Your task to perform on an android device: open a bookmark in the chrome app Image 0: 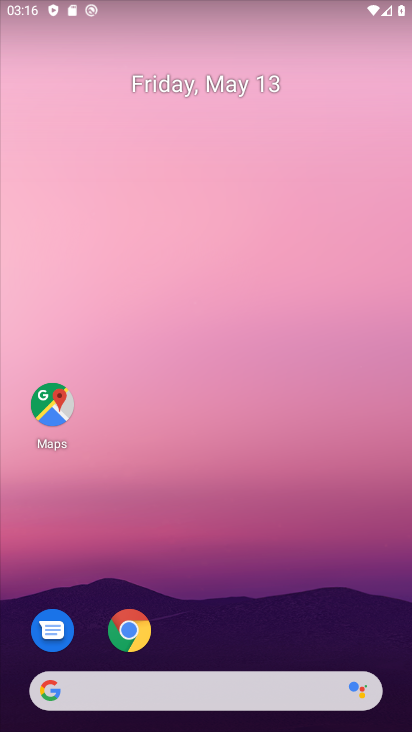
Step 0: click (145, 621)
Your task to perform on an android device: open a bookmark in the chrome app Image 1: 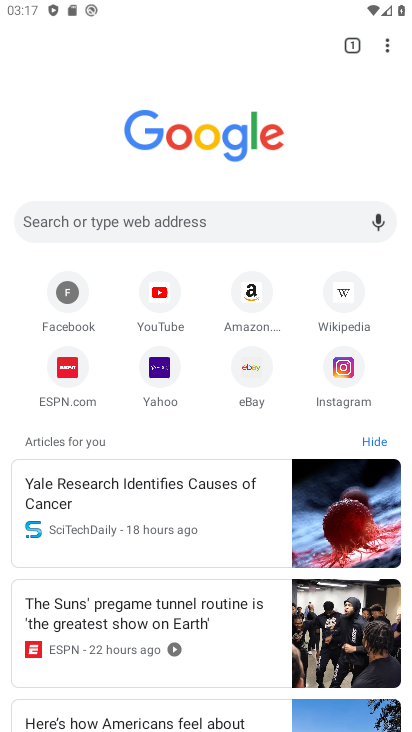
Step 1: click (382, 46)
Your task to perform on an android device: open a bookmark in the chrome app Image 2: 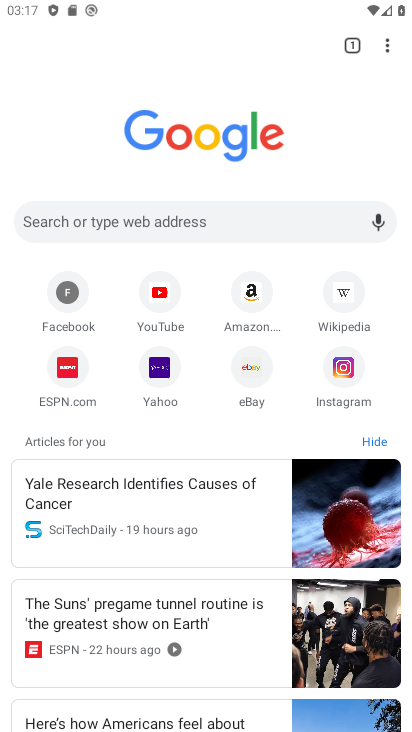
Step 2: task complete